Your task to perform on an android device: empty trash in the gmail app Image 0: 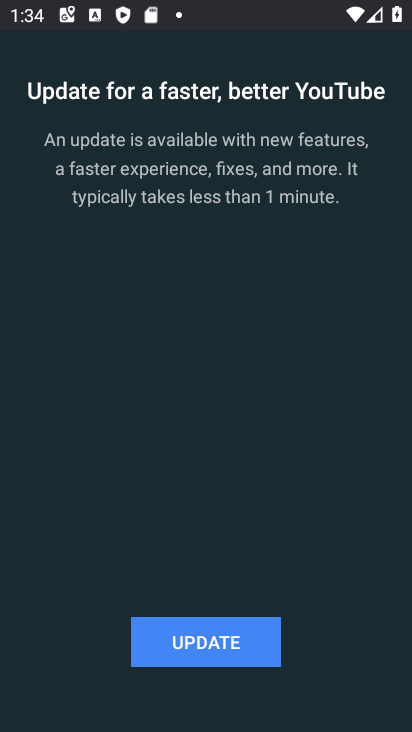
Step 0: press home button
Your task to perform on an android device: empty trash in the gmail app Image 1: 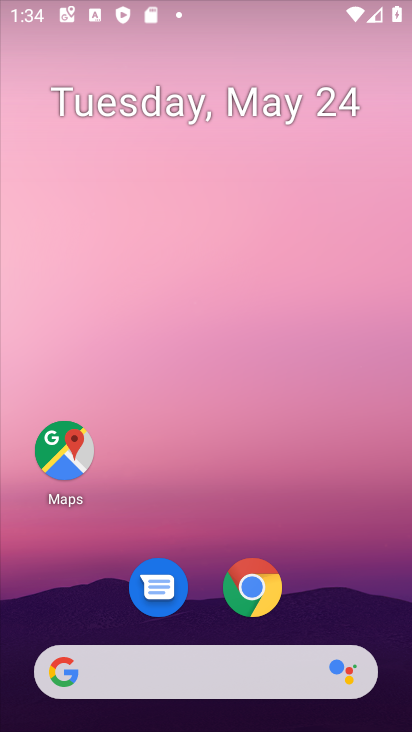
Step 1: drag from (310, 723) to (326, 46)
Your task to perform on an android device: empty trash in the gmail app Image 2: 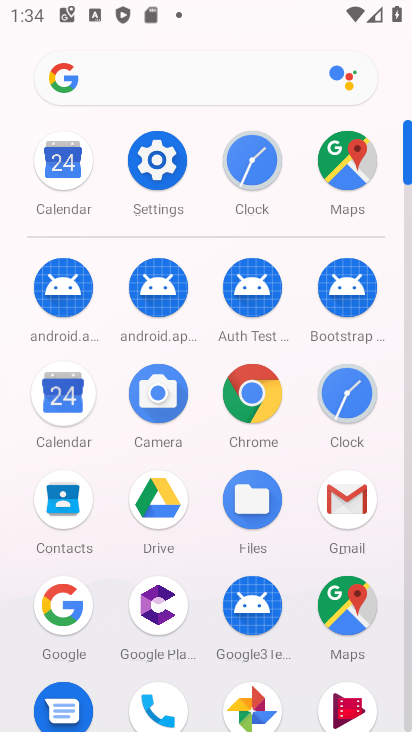
Step 2: click (341, 499)
Your task to perform on an android device: empty trash in the gmail app Image 3: 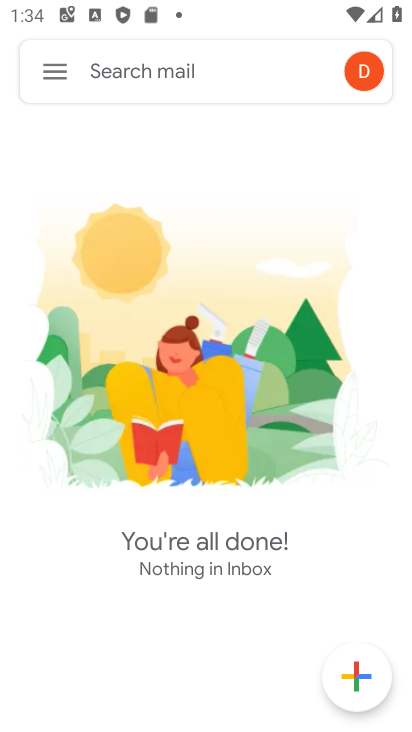
Step 3: click (59, 72)
Your task to perform on an android device: empty trash in the gmail app Image 4: 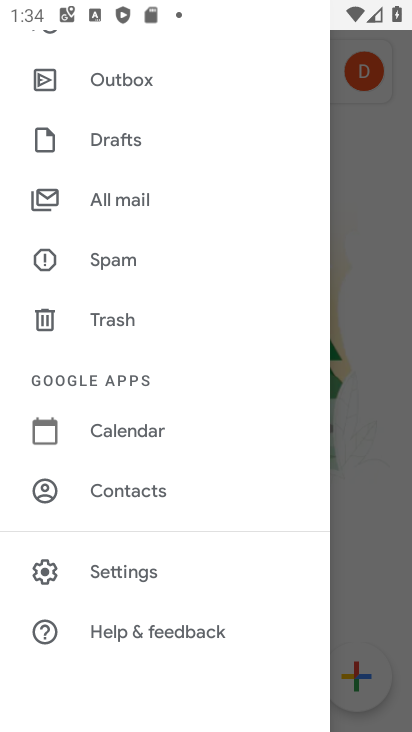
Step 4: click (137, 313)
Your task to perform on an android device: empty trash in the gmail app Image 5: 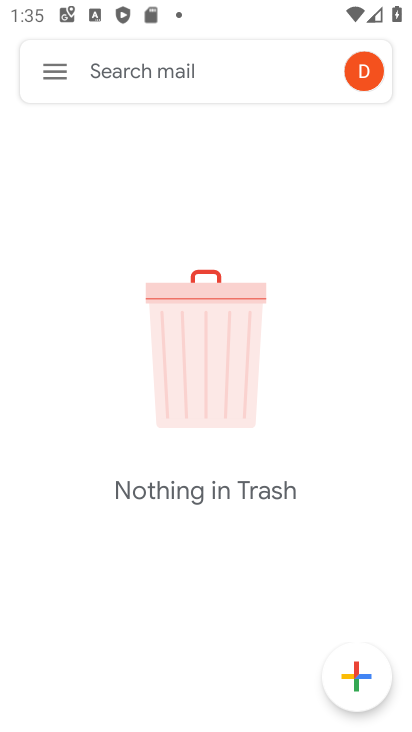
Step 5: task complete